Your task to perform on an android device: Go to Reddit.com Image 0: 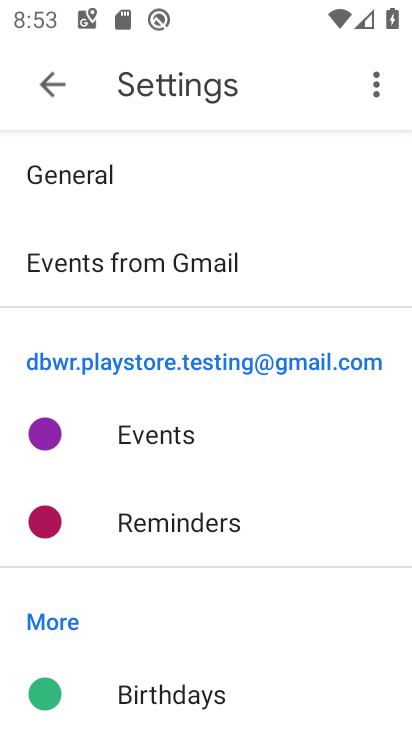
Step 0: press home button
Your task to perform on an android device: Go to Reddit.com Image 1: 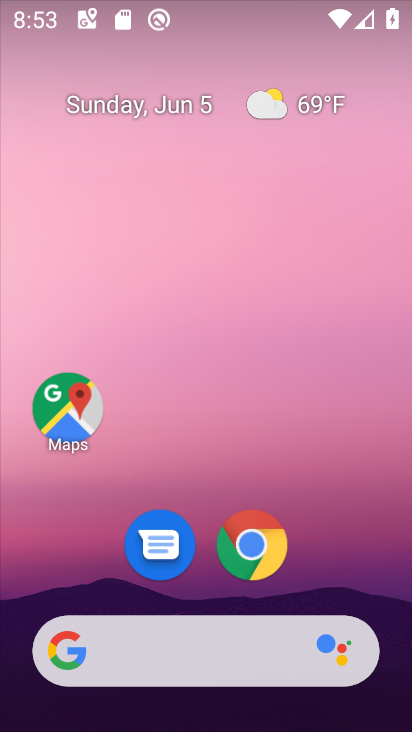
Step 1: drag from (383, 557) to (404, 176)
Your task to perform on an android device: Go to Reddit.com Image 2: 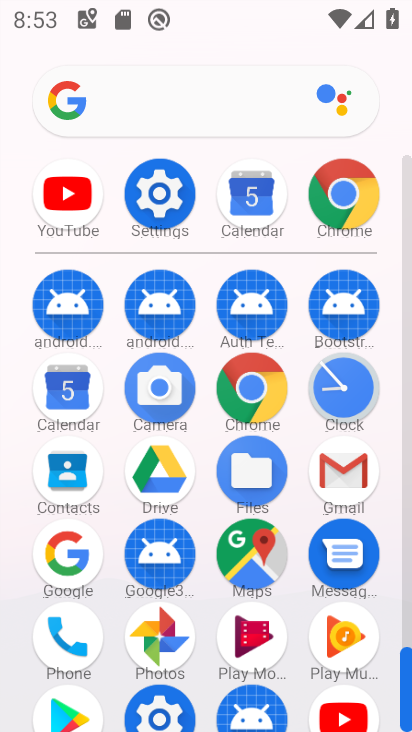
Step 2: click (261, 402)
Your task to perform on an android device: Go to Reddit.com Image 3: 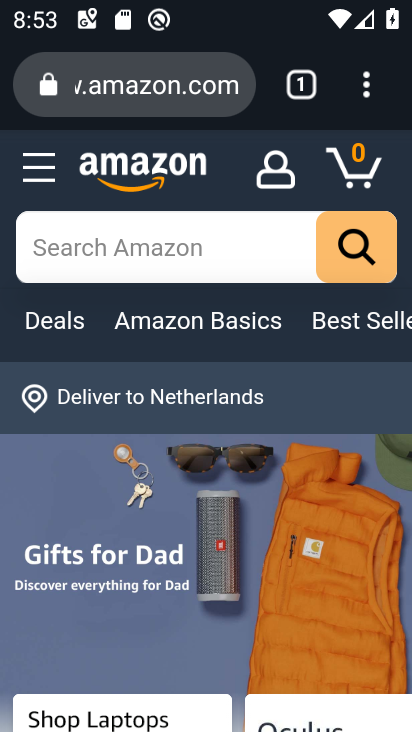
Step 3: click (210, 94)
Your task to perform on an android device: Go to Reddit.com Image 4: 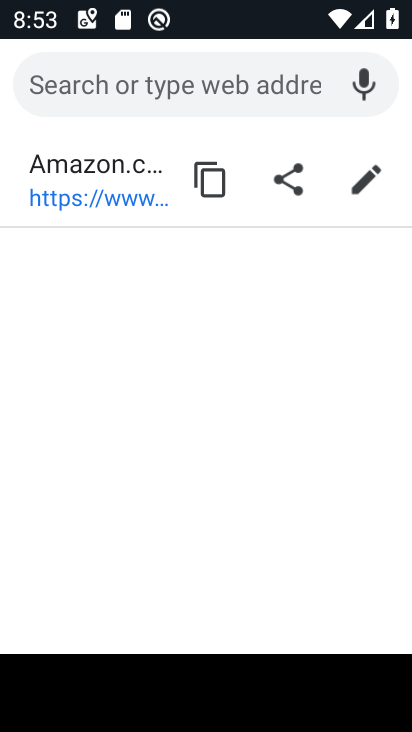
Step 4: type "reddit.com"
Your task to perform on an android device: Go to Reddit.com Image 5: 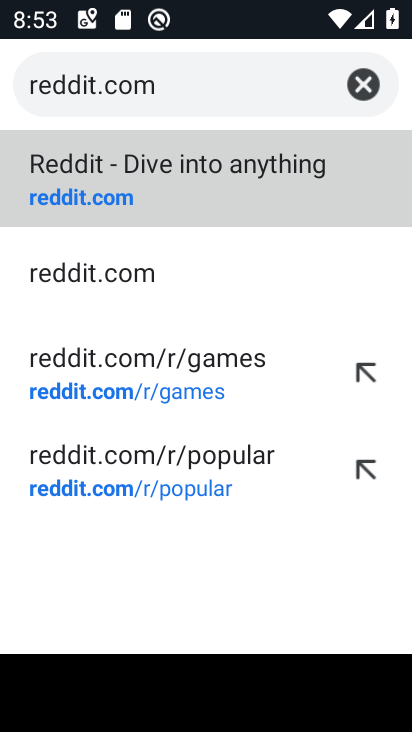
Step 5: click (119, 284)
Your task to perform on an android device: Go to Reddit.com Image 6: 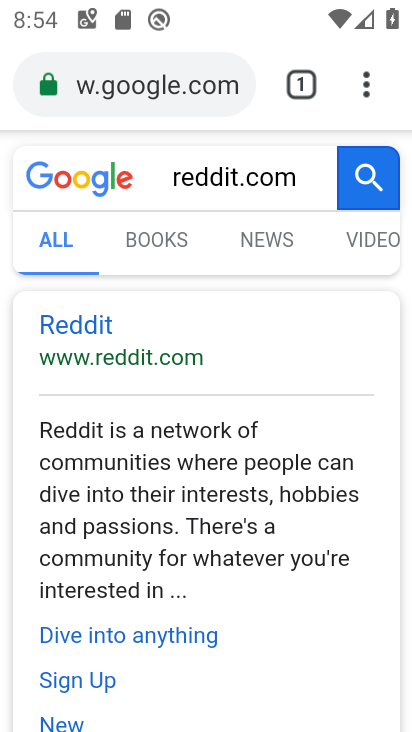
Step 6: task complete